Your task to perform on an android device: check data usage Image 0: 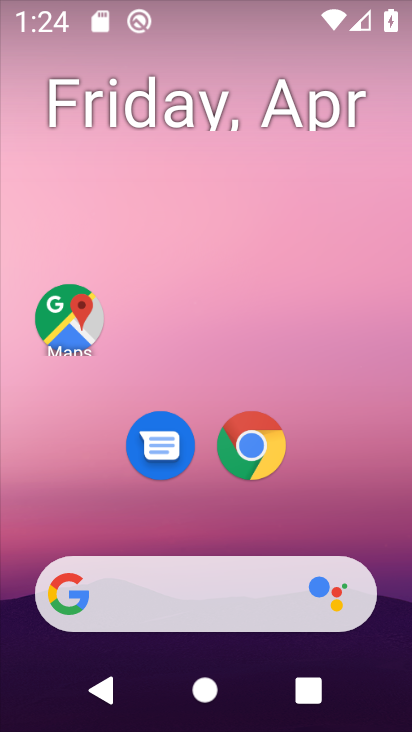
Step 0: drag from (362, 498) to (363, 141)
Your task to perform on an android device: check data usage Image 1: 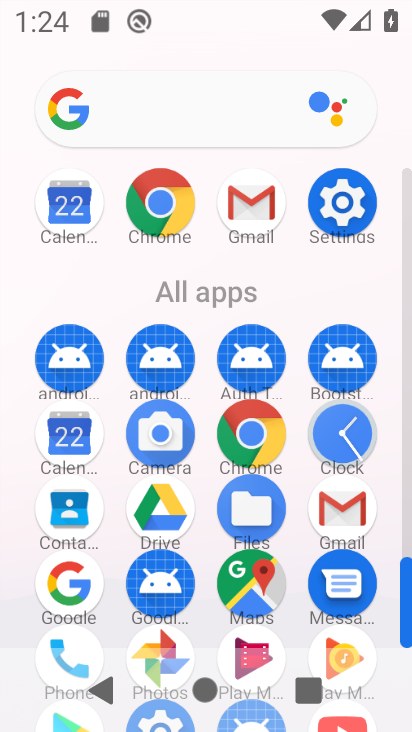
Step 1: click (353, 212)
Your task to perform on an android device: check data usage Image 2: 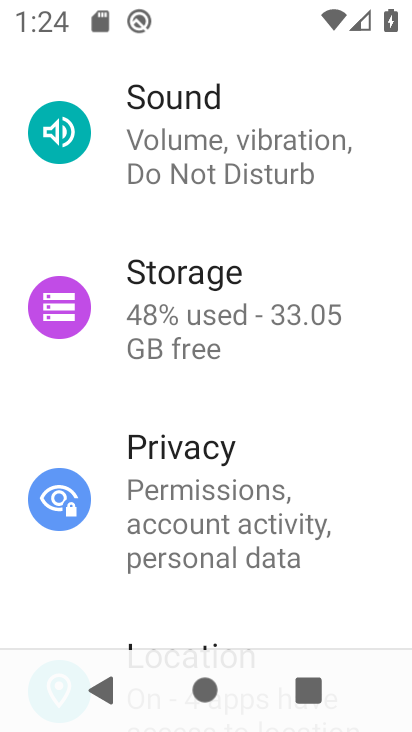
Step 2: drag from (357, 370) to (346, 475)
Your task to perform on an android device: check data usage Image 3: 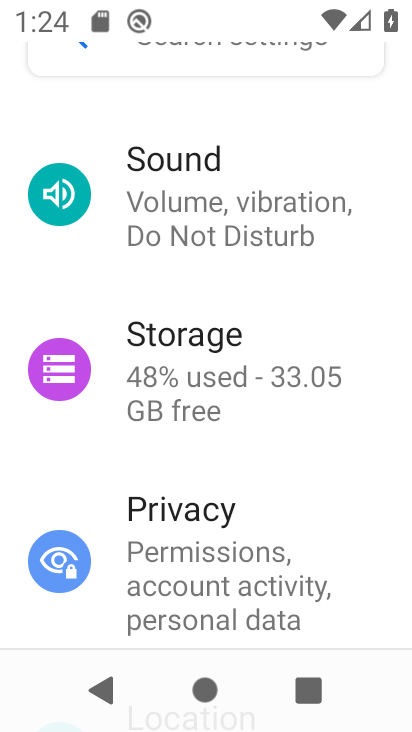
Step 3: drag from (366, 344) to (368, 463)
Your task to perform on an android device: check data usage Image 4: 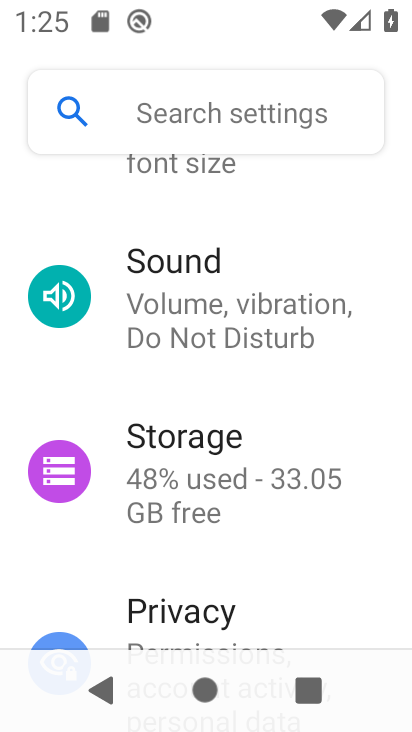
Step 4: drag from (380, 328) to (380, 447)
Your task to perform on an android device: check data usage Image 5: 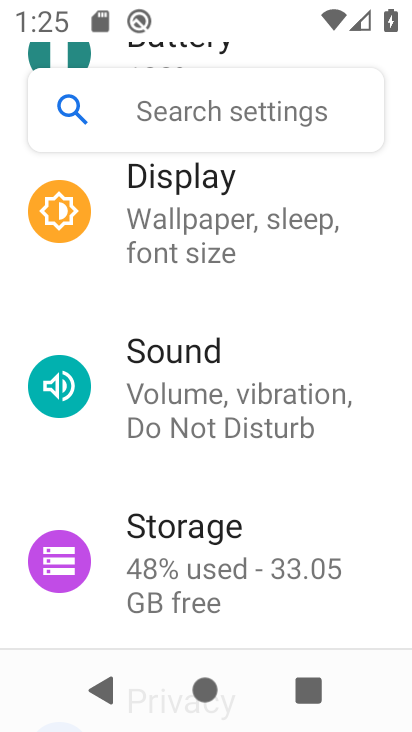
Step 5: drag from (362, 323) to (357, 447)
Your task to perform on an android device: check data usage Image 6: 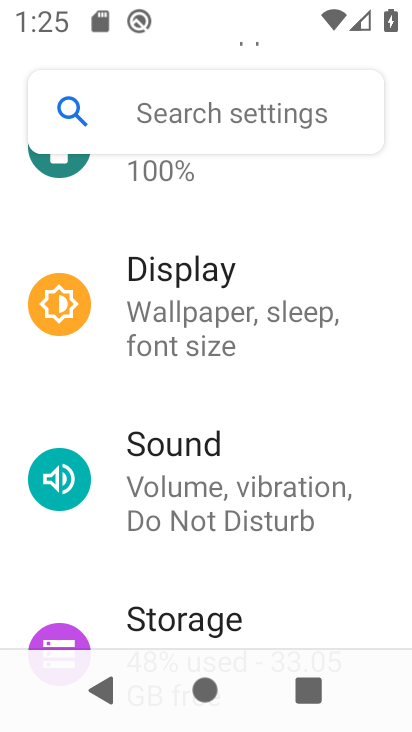
Step 6: drag from (369, 357) to (368, 454)
Your task to perform on an android device: check data usage Image 7: 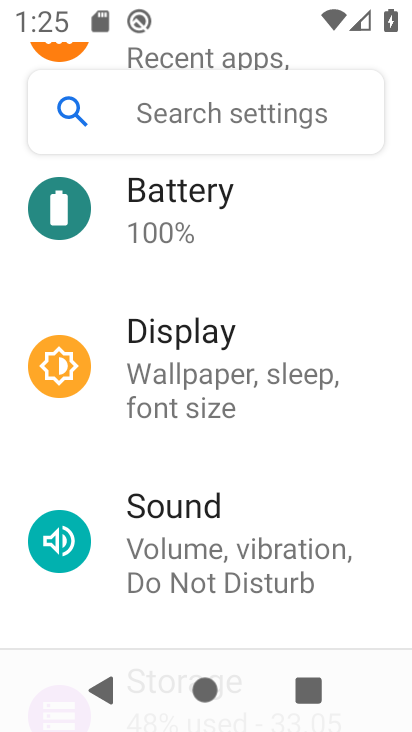
Step 7: drag from (366, 321) to (365, 442)
Your task to perform on an android device: check data usage Image 8: 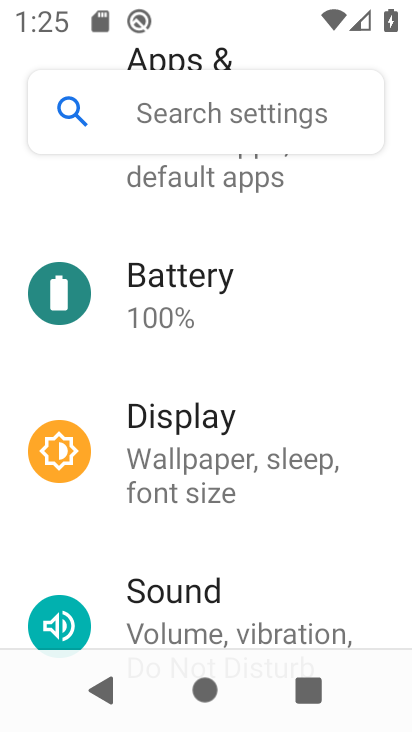
Step 8: drag from (377, 317) to (370, 435)
Your task to perform on an android device: check data usage Image 9: 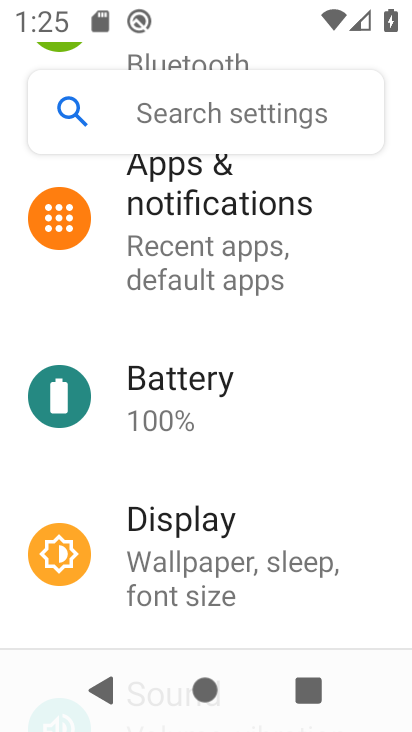
Step 9: drag from (368, 325) to (366, 430)
Your task to perform on an android device: check data usage Image 10: 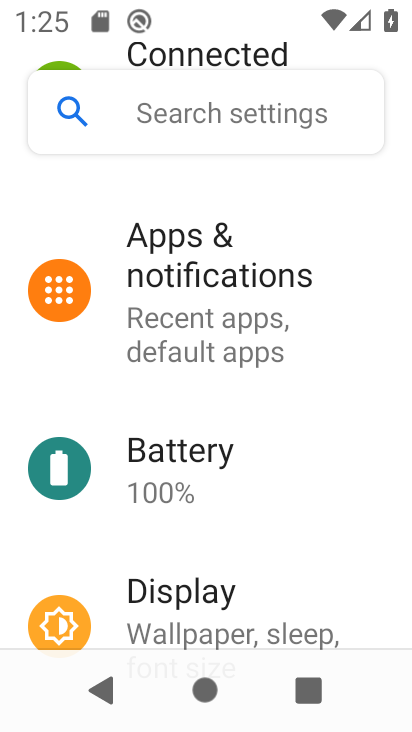
Step 10: drag from (351, 340) to (347, 443)
Your task to perform on an android device: check data usage Image 11: 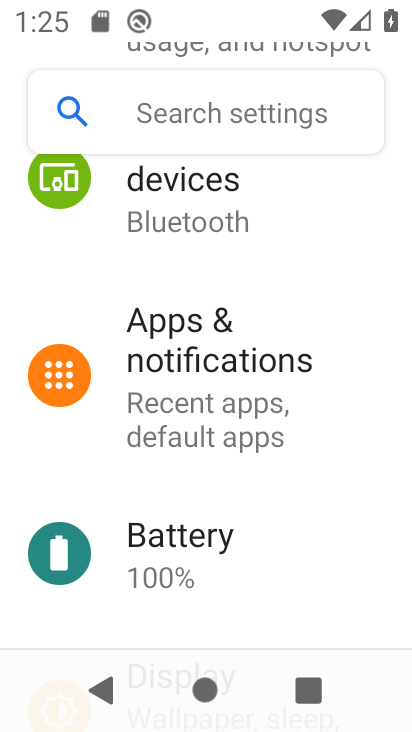
Step 11: drag from (356, 350) to (358, 461)
Your task to perform on an android device: check data usage Image 12: 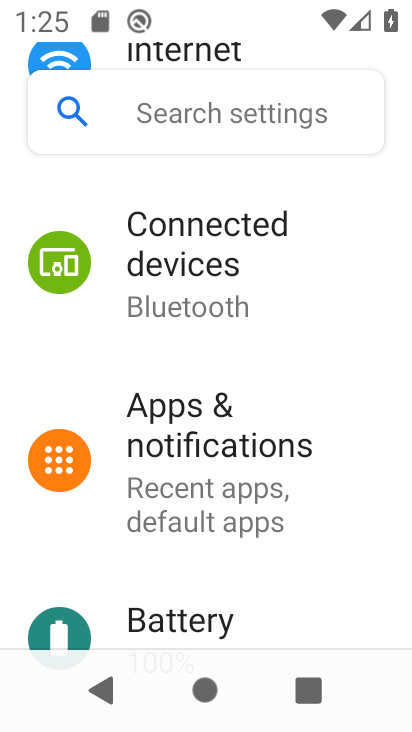
Step 12: drag from (357, 346) to (353, 464)
Your task to perform on an android device: check data usage Image 13: 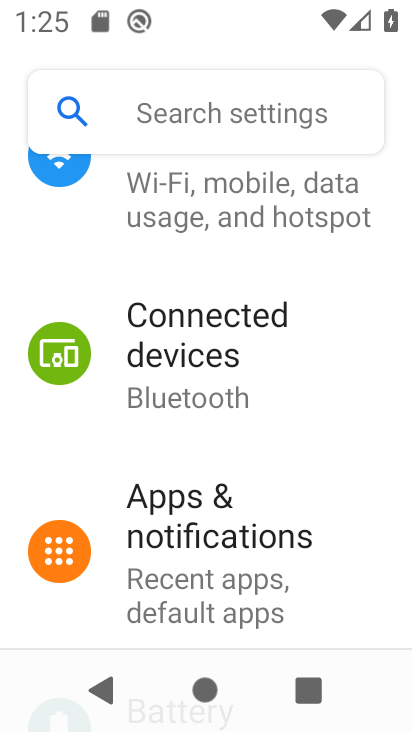
Step 13: drag from (351, 311) to (350, 482)
Your task to perform on an android device: check data usage Image 14: 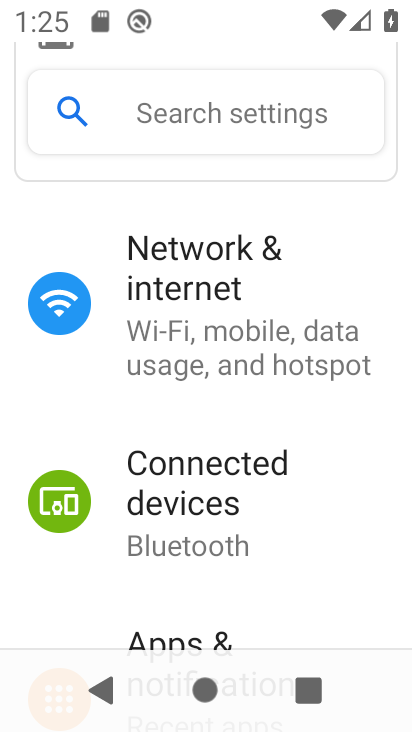
Step 14: click (297, 329)
Your task to perform on an android device: check data usage Image 15: 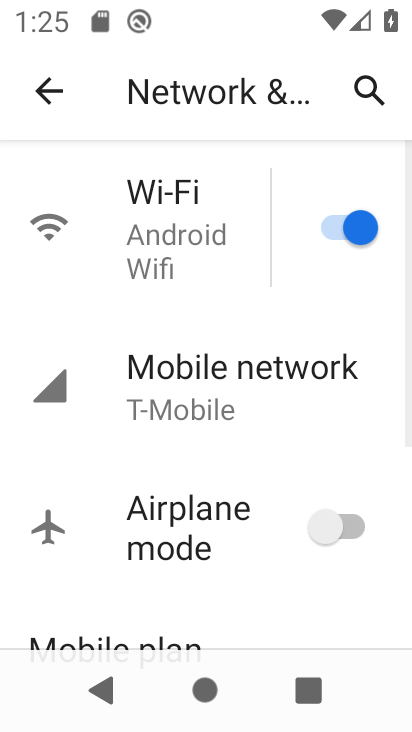
Step 15: click (280, 366)
Your task to perform on an android device: check data usage Image 16: 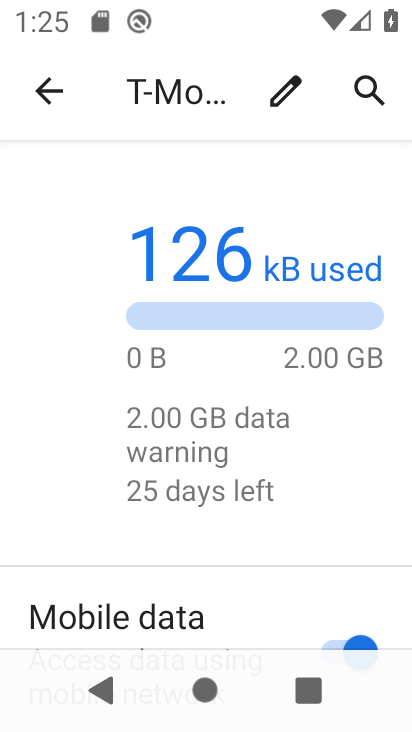
Step 16: drag from (271, 556) to (293, 382)
Your task to perform on an android device: check data usage Image 17: 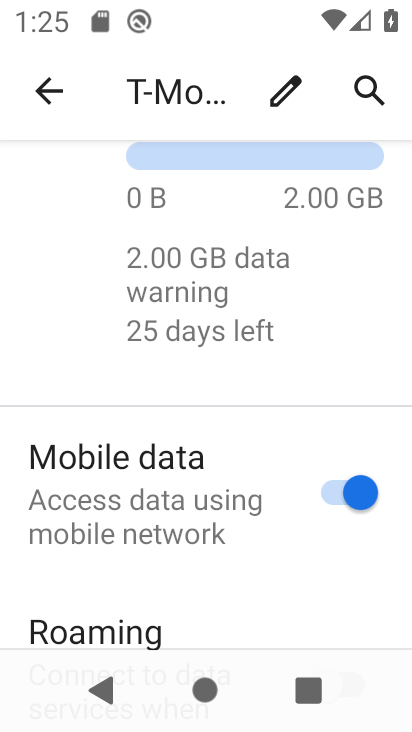
Step 17: drag from (278, 572) to (297, 402)
Your task to perform on an android device: check data usage Image 18: 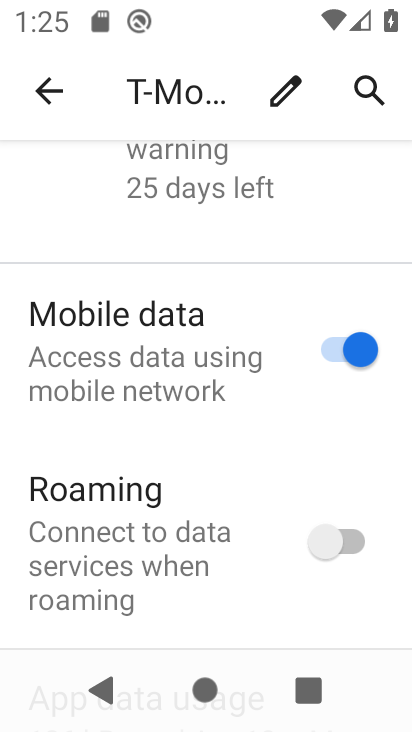
Step 18: drag from (246, 583) to (251, 415)
Your task to perform on an android device: check data usage Image 19: 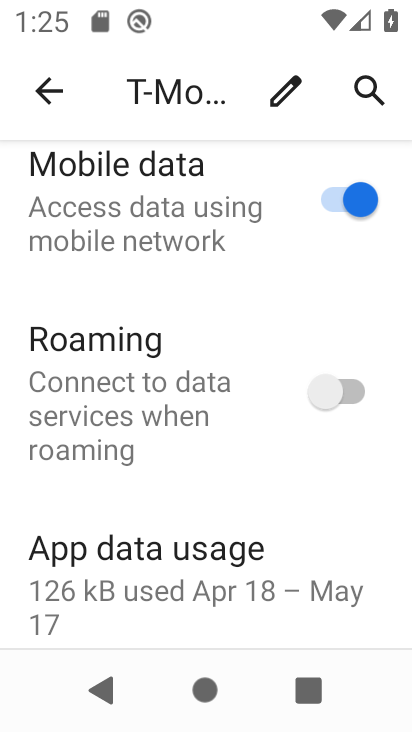
Step 19: click (222, 559)
Your task to perform on an android device: check data usage Image 20: 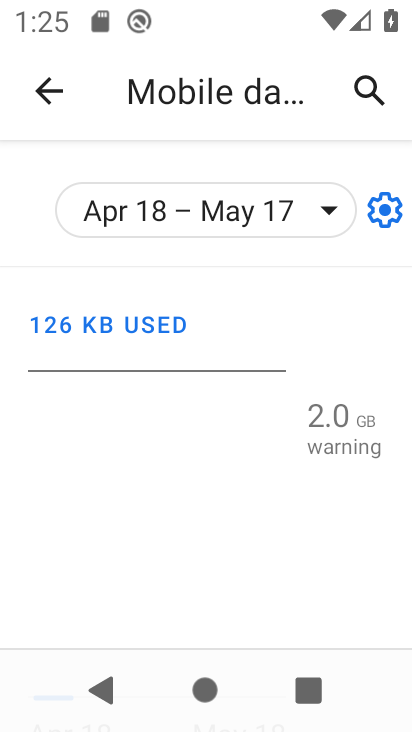
Step 20: task complete